Your task to perform on an android device: Open my contact list Image 0: 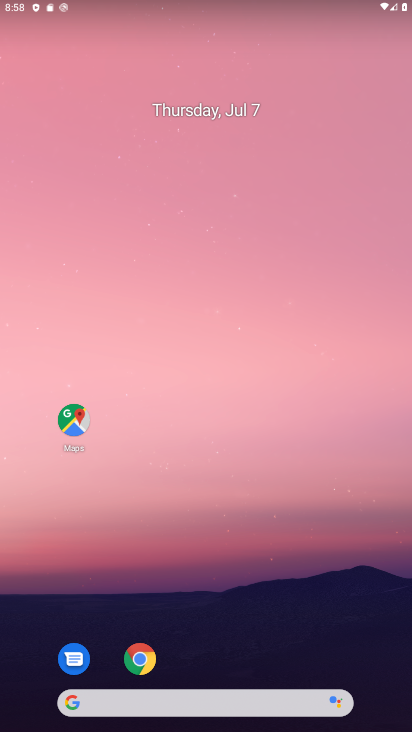
Step 0: drag from (210, 200) to (294, 17)
Your task to perform on an android device: Open my contact list Image 1: 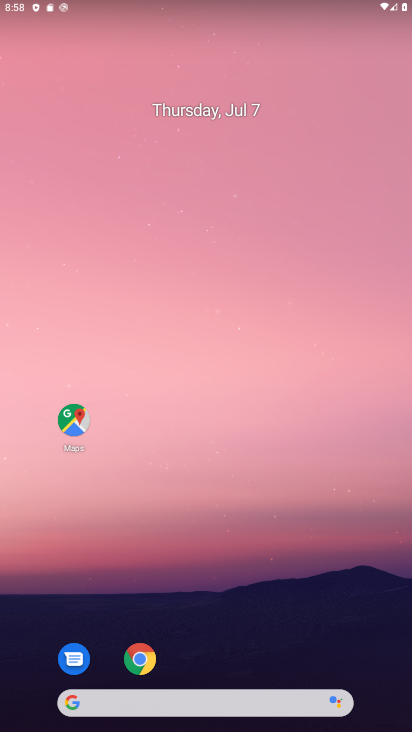
Step 1: drag from (264, 637) to (310, 23)
Your task to perform on an android device: Open my contact list Image 2: 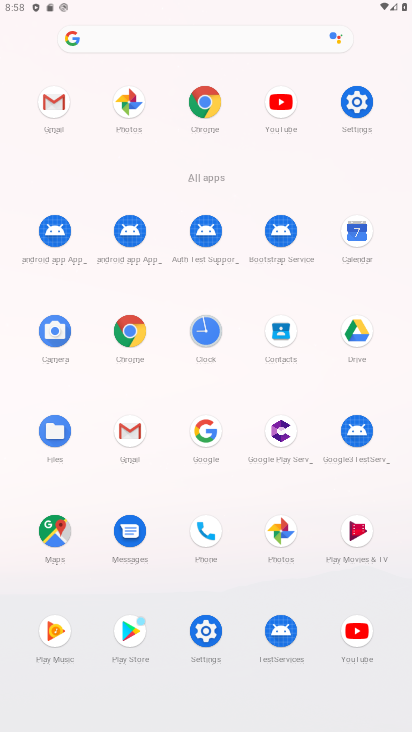
Step 2: click (275, 322)
Your task to perform on an android device: Open my contact list Image 3: 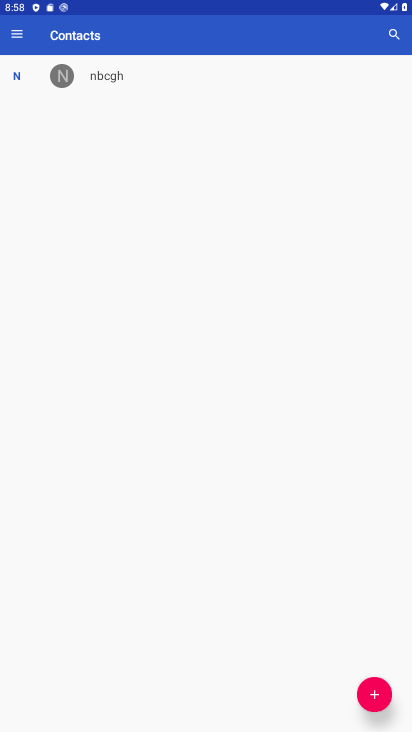
Step 3: task complete